Your task to perform on an android device: turn off javascript in the chrome app Image 0: 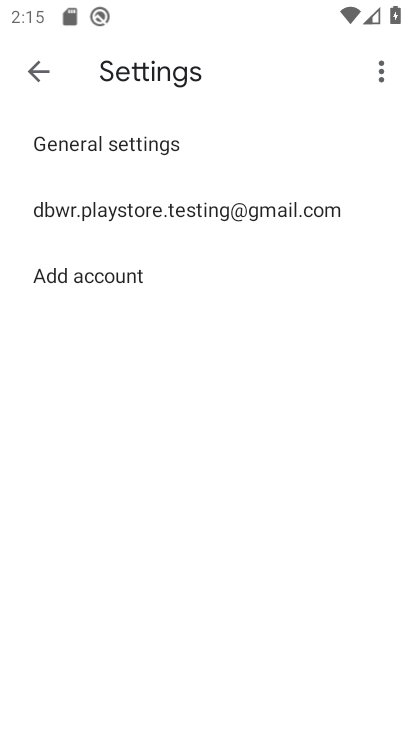
Step 0: press home button
Your task to perform on an android device: turn off javascript in the chrome app Image 1: 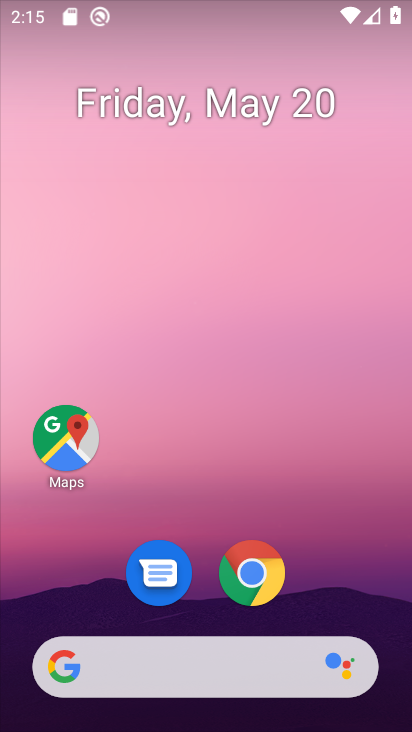
Step 1: click (227, 583)
Your task to perform on an android device: turn off javascript in the chrome app Image 2: 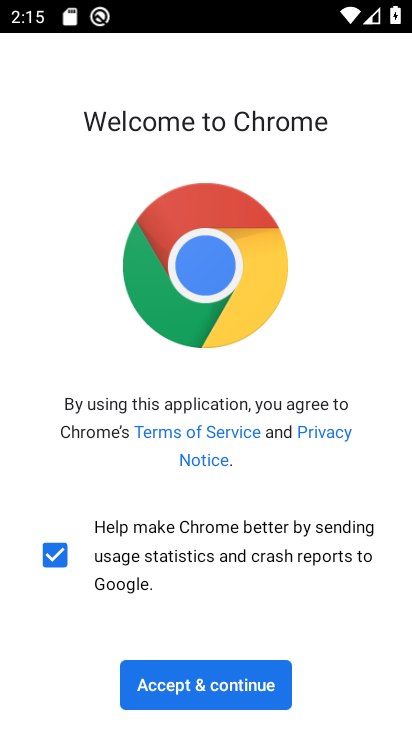
Step 2: click (260, 681)
Your task to perform on an android device: turn off javascript in the chrome app Image 3: 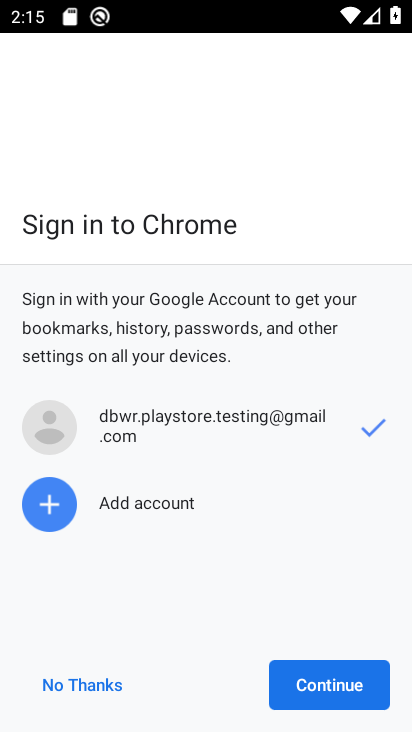
Step 3: click (339, 672)
Your task to perform on an android device: turn off javascript in the chrome app Image 4: 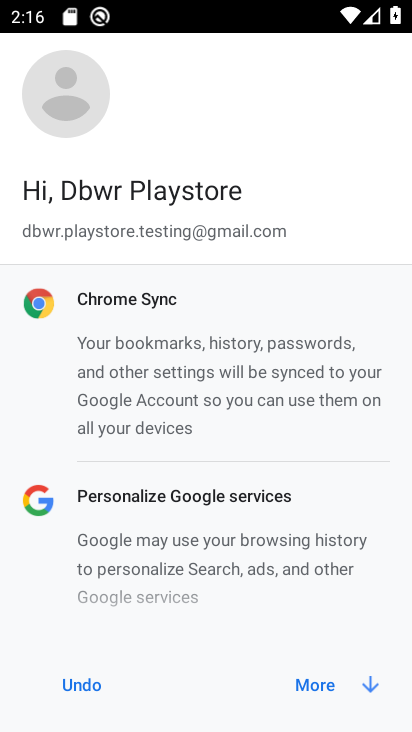
Step 4: click (311, 678)
Your task to perform on an android device: turn off javascript in the chrome app Image 5: 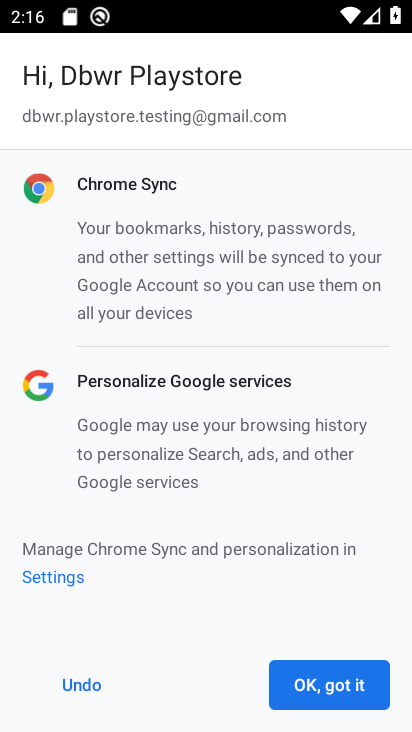
Step 5: click (311, 678)
Your task to perform on an android device: turn off javascript in the chrome app Image 6: 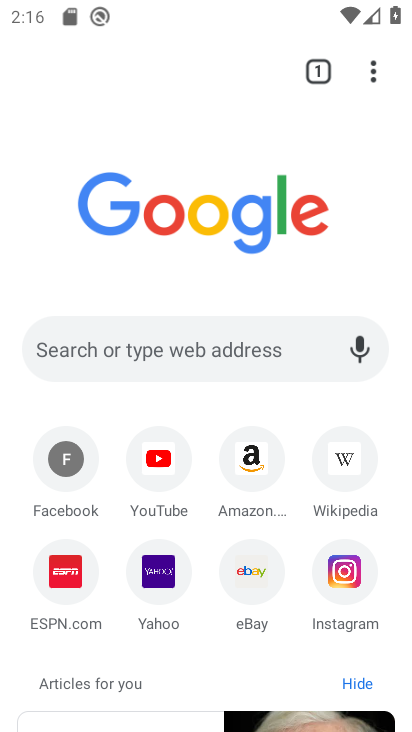
Step 6: click (370, 74)
Your task to perform on an android device: turn off javascript in the chrome app Image 7: 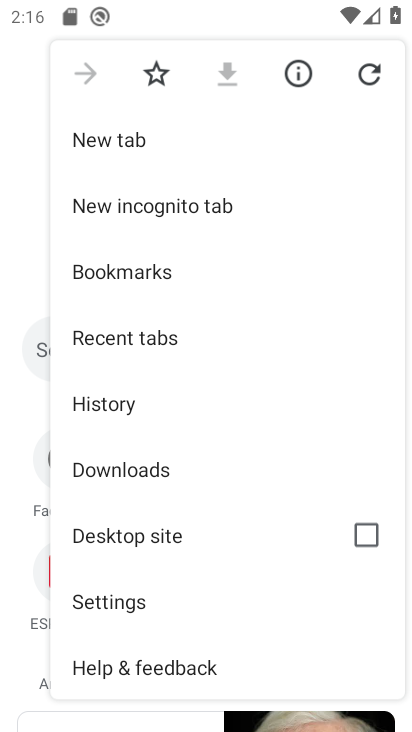
Step 7: drag from (204, 575) to (231, 319)
Your task to perform on an android device: turn off javascript in the chrome app Image 8: 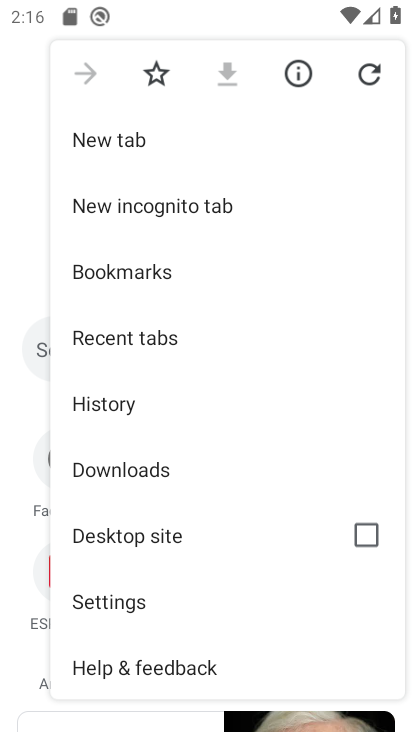
Step 8: click (144, 589)
Your task to perform on an android device: turn off javascript in the chrome app Image 9: 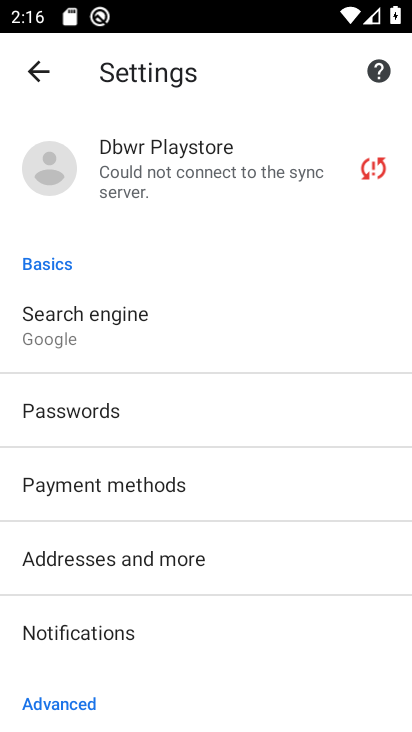
Step 9: drag from (174, 641) to (203, 424)
Your task to perform on an android device: turn off javascript in the chrome app Image 10: 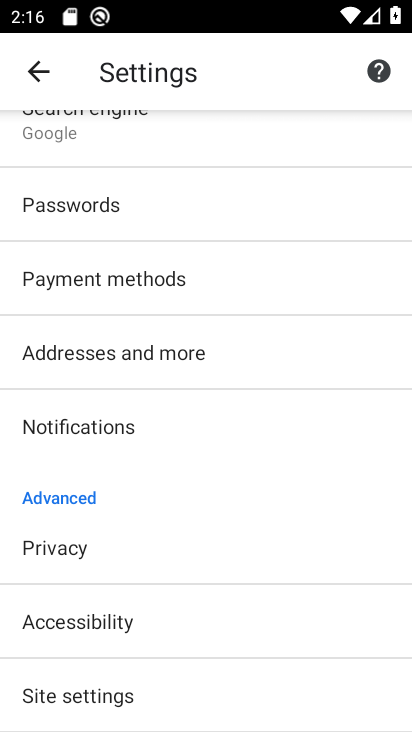
Step 10: drag from (170, 558) to (201, 384)
Your task to perform on an android device: turn off javascript in the chrome app Image 11: 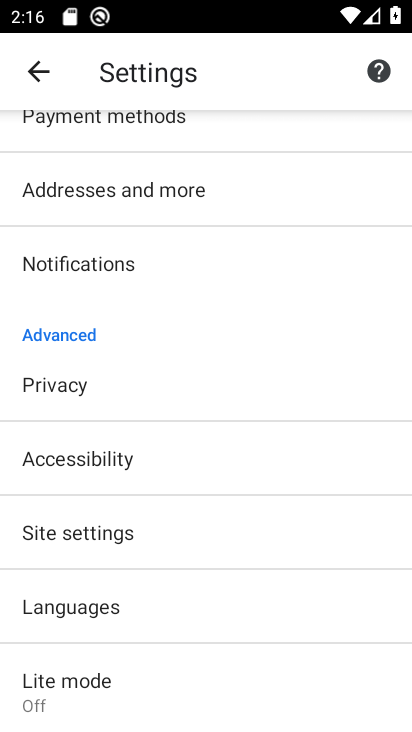
Step 11: click (123, 542)
Your task to perform on an android device: turn off javascript in the chrome app Image 12: 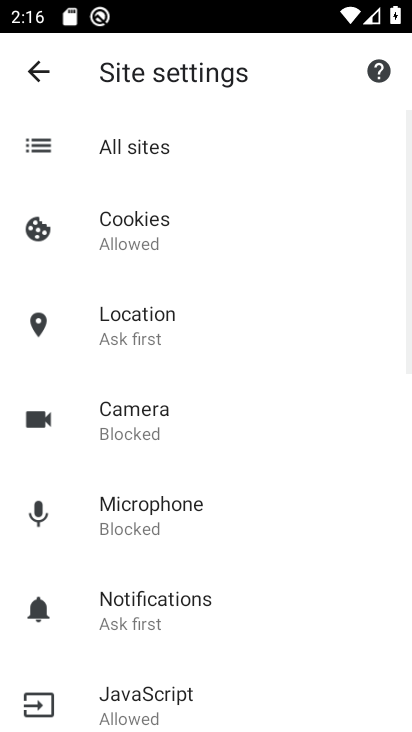
Step 12: drag from (137, 609) to (169, 328)
Your task to perform on an android device: turn off javascript in the chrome app Image 13: 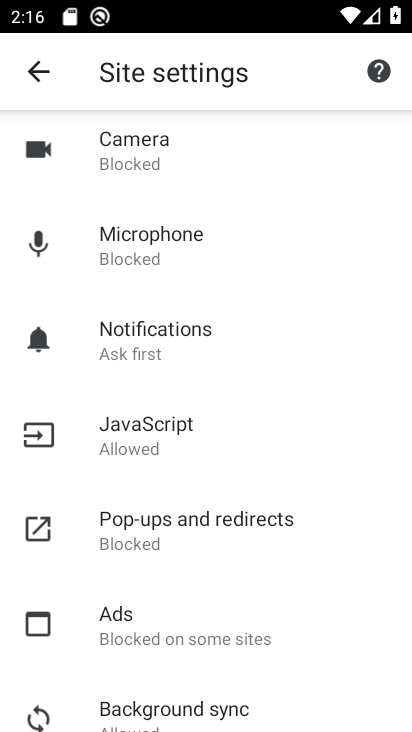
Step 13: click (182, 453)
Your task to perform on an android device: turn off javascript in the chrome app Image 14: 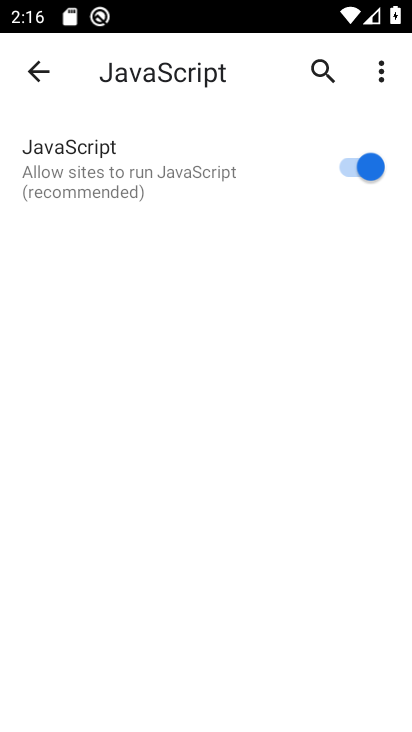
Step 14: click (345, 171)
Your task to perform on an android device: turn off javascript in the chrome app Image 15: 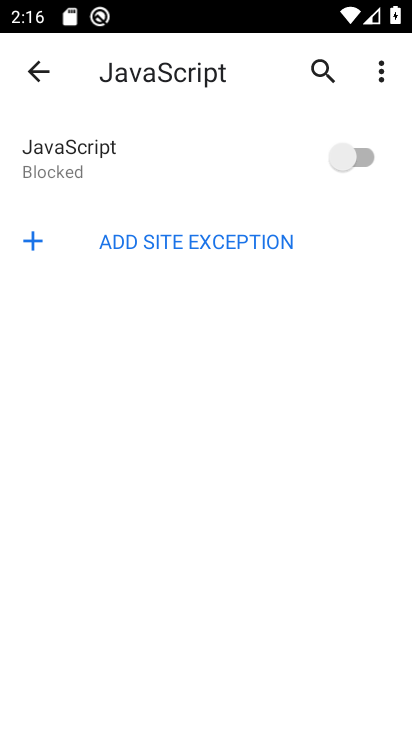
Step 15: task complete